Your task to perform on an android device: change the clock display to digital Image 0: 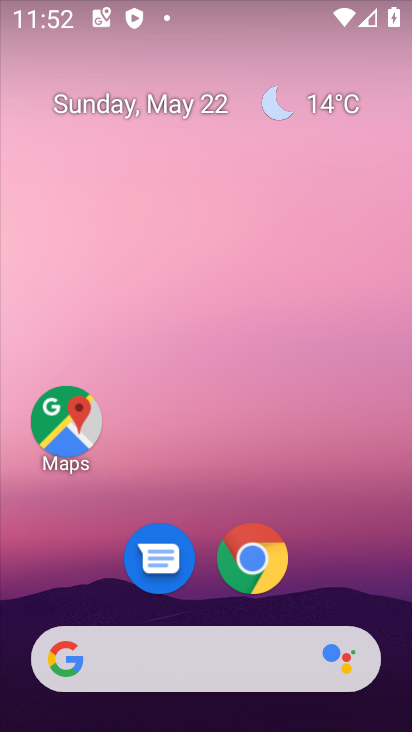
Step 0: drag from (350, 612) to (380, 9)
Your task to perform on an android device: change the clock display to digital Image 1: 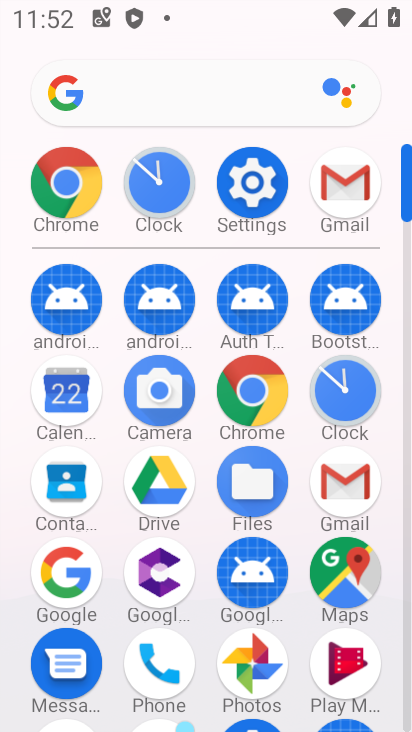
Step 1: click (342, 389)
Your task to perform on an android device: change the clock display to digital Image 2: 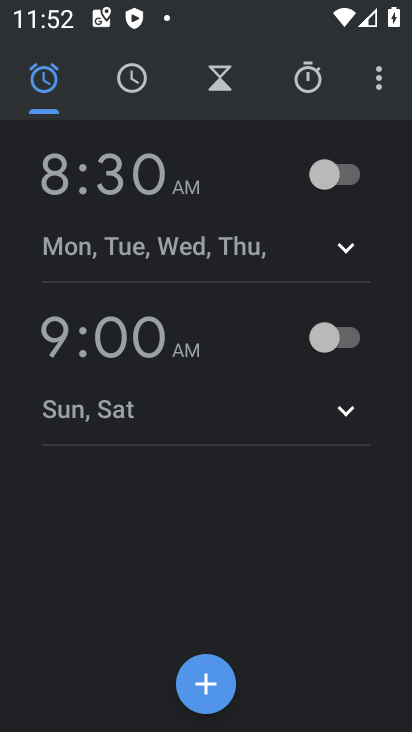
Step 2: click (379, 82)
Your task to perform on an android device: change the clock display to digital Image 3: 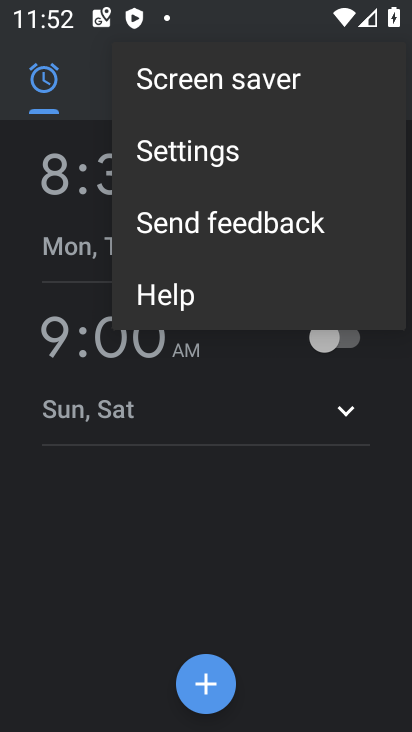
Step 3: click (195, 159)
Your task to perform on an android device: change the clock display to digital Image 4: 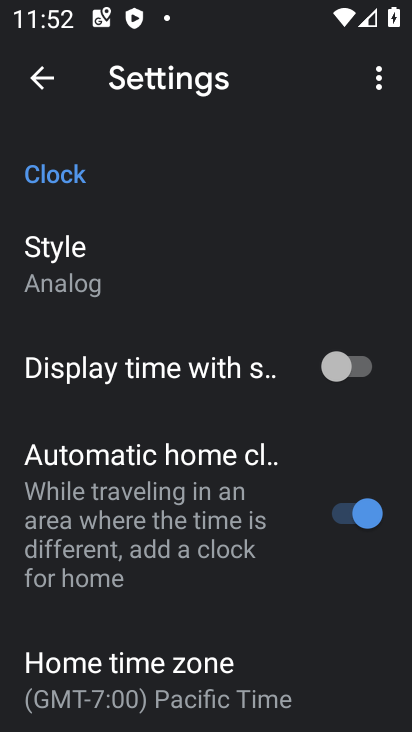
Step 4: click (83, 289)
Your task to perform on an android device: change the clock display to digital Image 5: 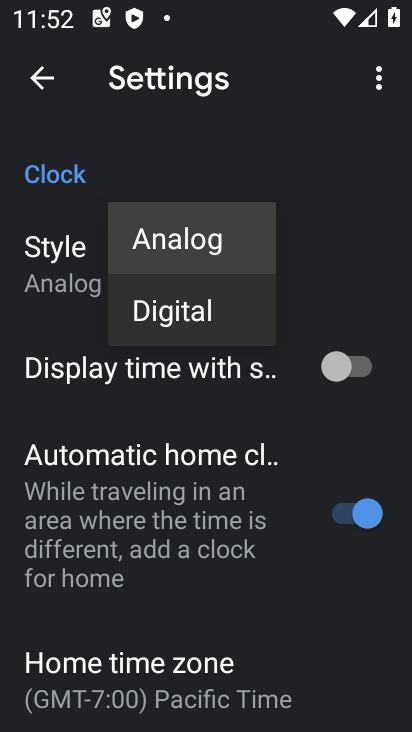
Step 5: click (145, 310)
Your task to perform on an android device: change the clock display to digital Image 6: 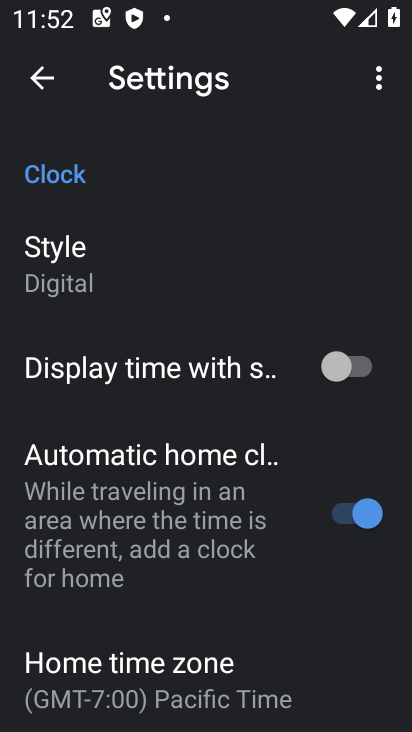
Step 6: task complete